Your task to perform on an android device: open sync settings in chrome Image 0: 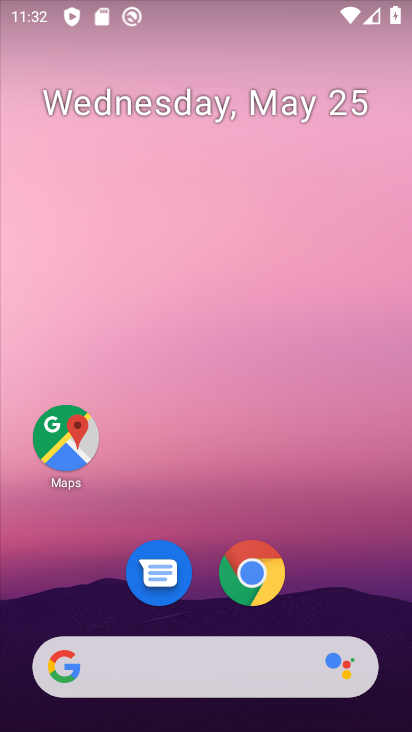
Step 0: click (241, 592)
Your task to perform on an android device: open sync settings in chrome Image 1: 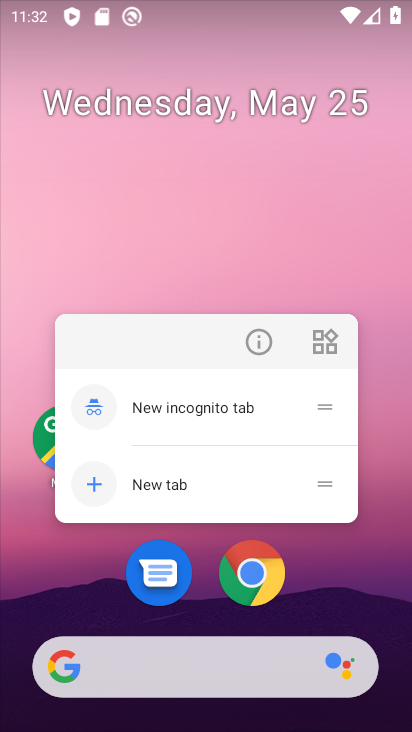
Step 1: click (241, 592)
Your task to perform on an android device: open sync settings in chrome Image 2: 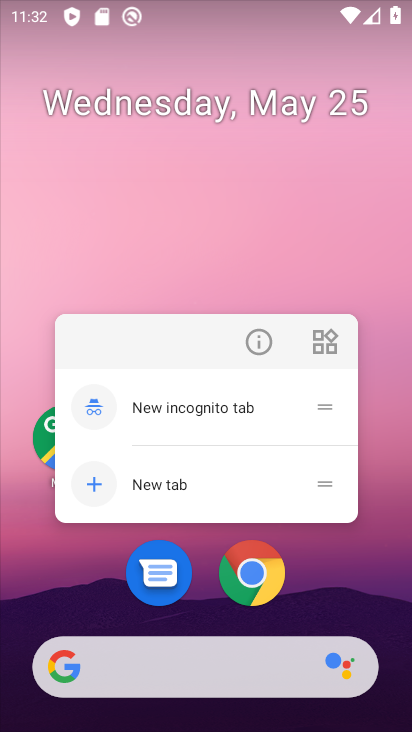
Step 2: click (241, 592)
Your task to perform on an android device: open sync settings in chrome Image 3: 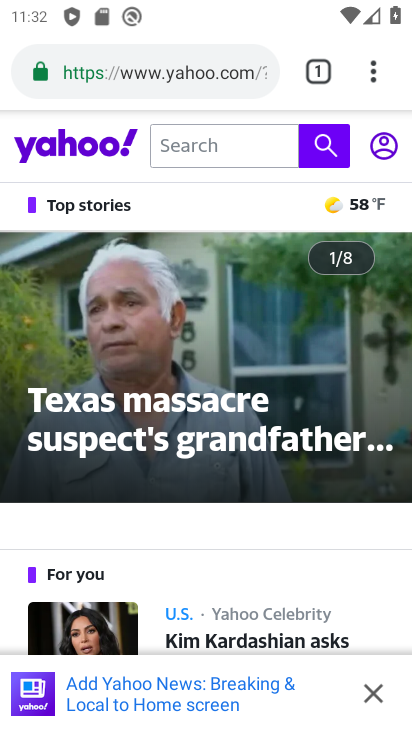
Step 3: drag from (370, 70) to (158, 568)
Your task to perform on an android device: open sync settings in chrome Image 4: 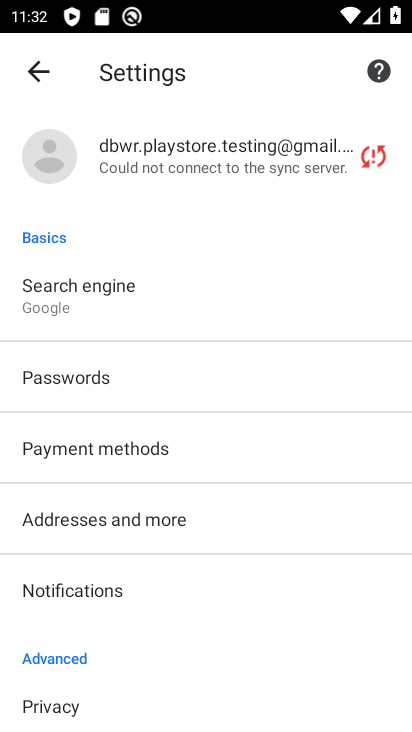
Step 4: click (205, 170)
Your task to perform on an android device: open sync settings in chrome Image 5: 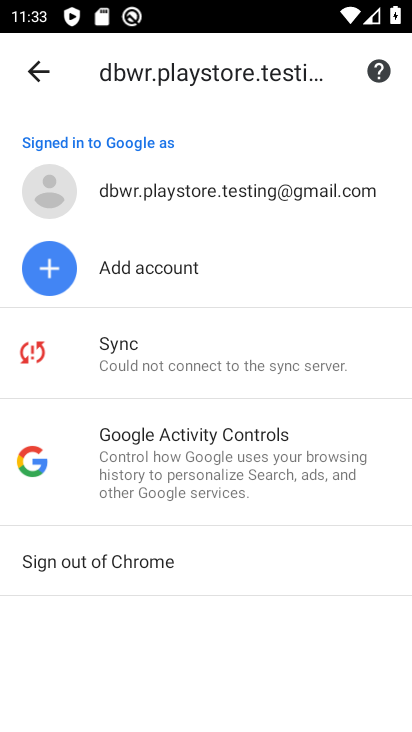
Step 5: task complete